Your task to perform on an android device: Do I have any events today? Image 0: 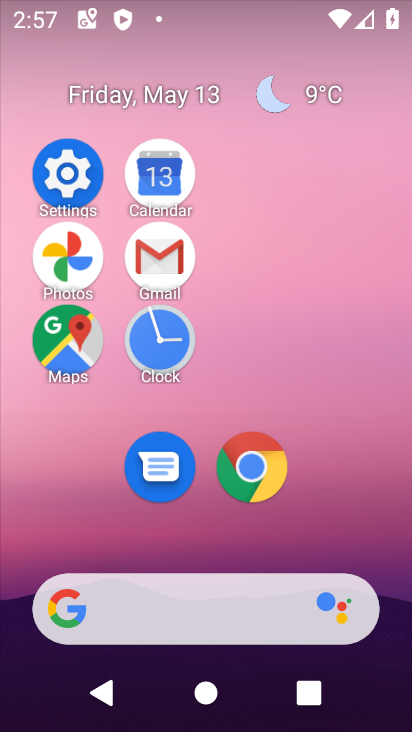
Step 0: click (153, 205)
Your task to perform on an android device: Do I have any events today? Image 1: 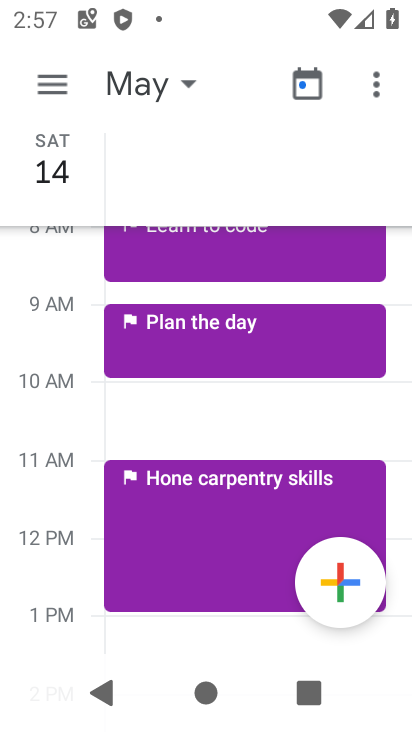
Step 1: task complete